Your task to perform on an android device: turn off smart reply in the gmail app Image 0: 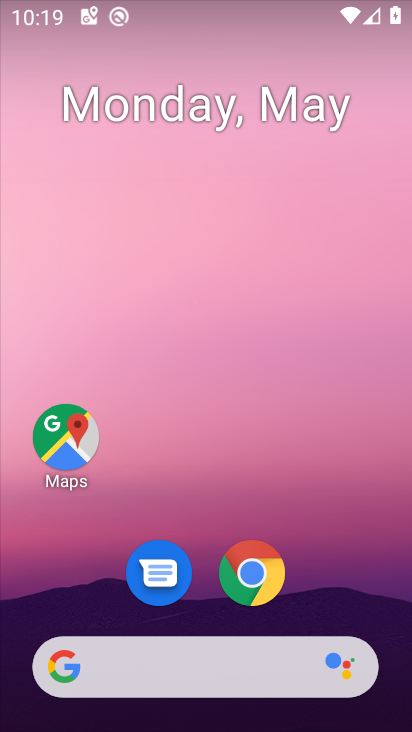
Step 0: drag from (204, 604) to (269, 138)
Your task to perform on an android device: turn off smart reply in the gmail app Image 1: 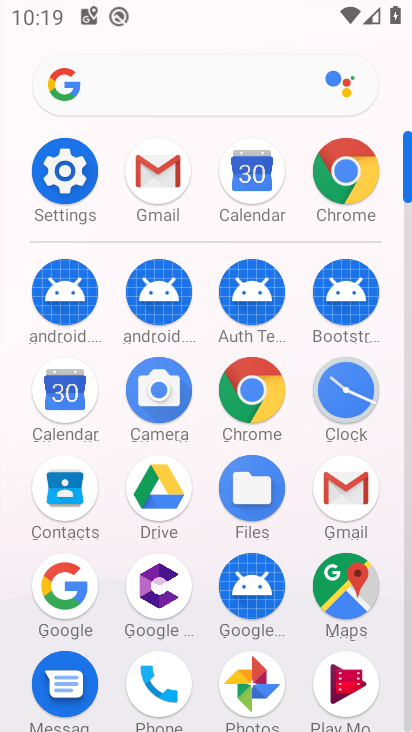
Step 1: click (140, 164)
Your task to perform on an android device: turn off smart reply in the gmail app Image 2: 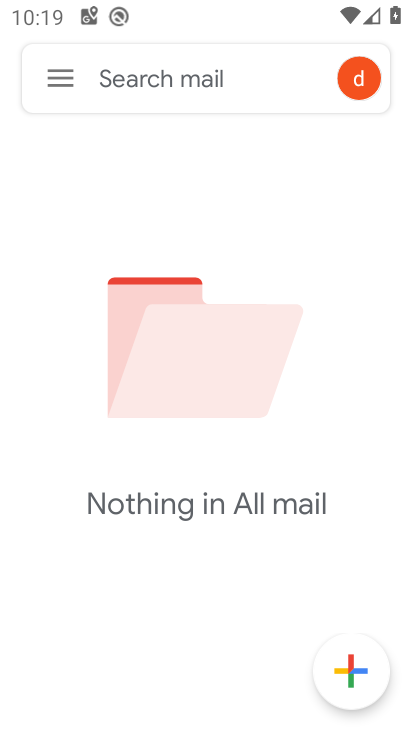
Step 2: click (56, 72)
Your task to perform on an android device: turn off smart reply in the gmail app Image 3: 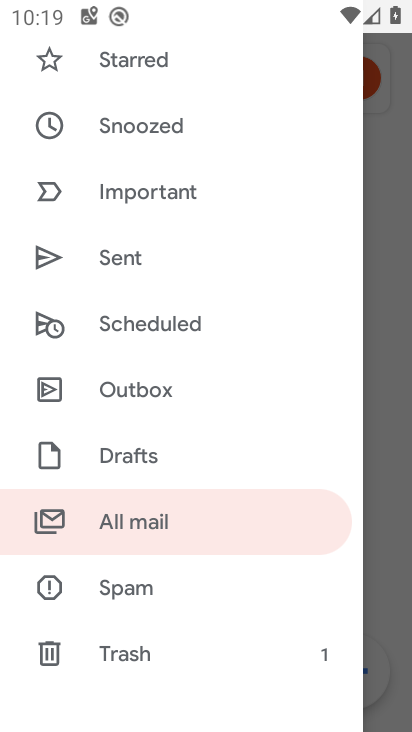
Step 3: drag from (193, 623) to (236, 121)
Your task to perform on an android device: turn off smart reply in the gmail app Image 4: 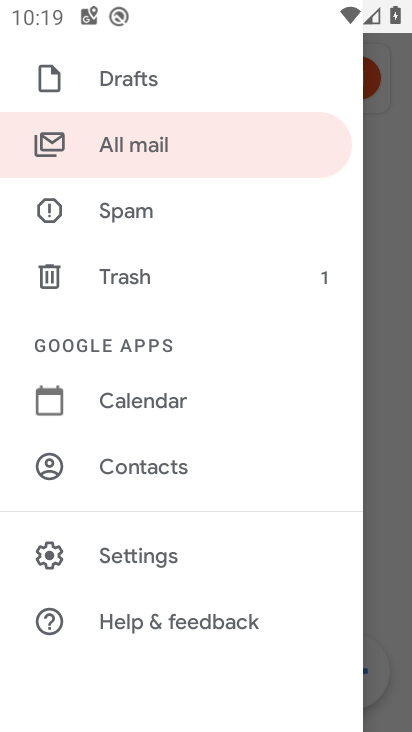
Step 4: click (154, 547)
Your task to perform on an android device: turn off smart reply in the gmail app Image 5: 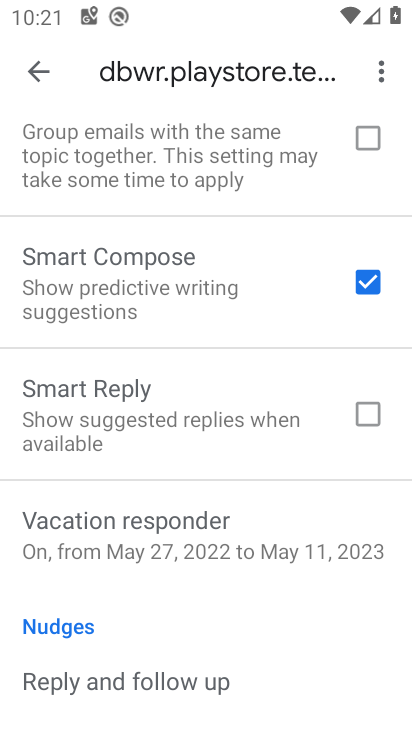
Step 5: task complete